Your task to perform on an android device: Empty the shopping cart on ebay.com. Add logitech g502 to the cart on ebay.com, then select checkout. Image 0: 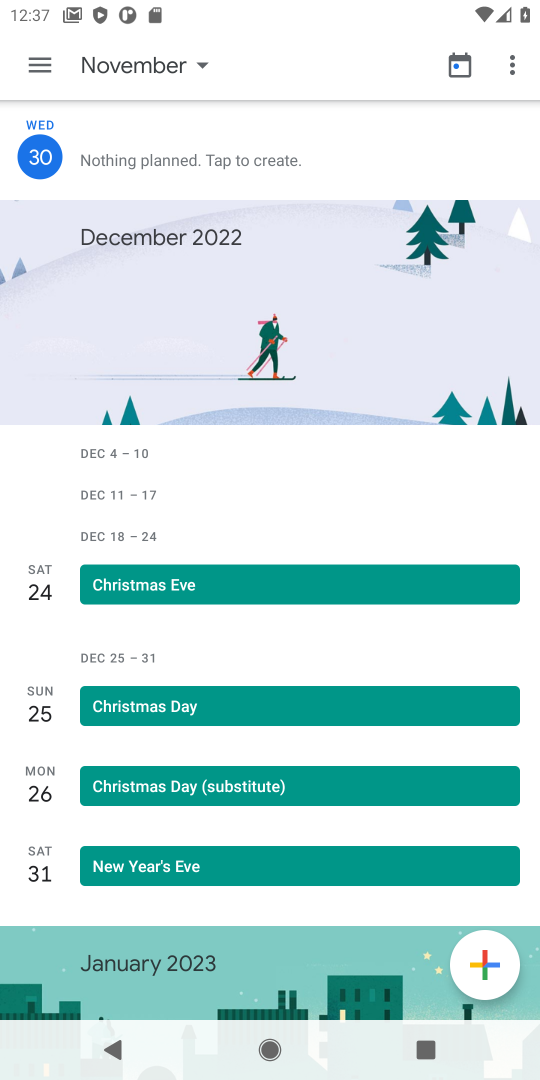
Step 0: press home button
Your task to perform on an android device: Empty the shopping cart on ebay.com. Add logitech g502 to the cart on ebay.com, then select checkout. Image 1: 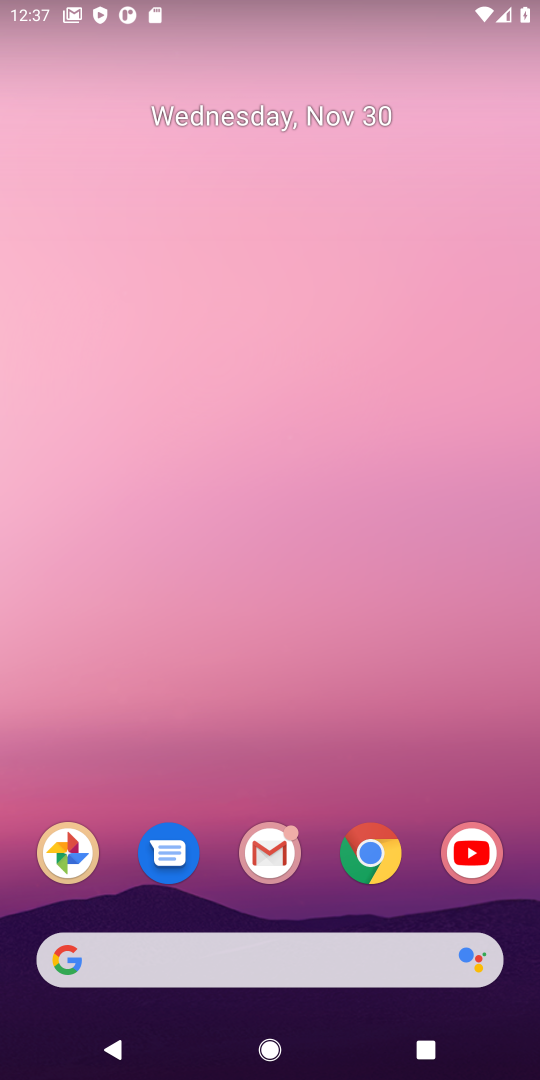
Step 1: click (378, 862)
Your task to perform on an android device: Empty the shopping cart on ebay.com. Add logitech g502 to the cart on ebay.com, then select checkout. Image 2: 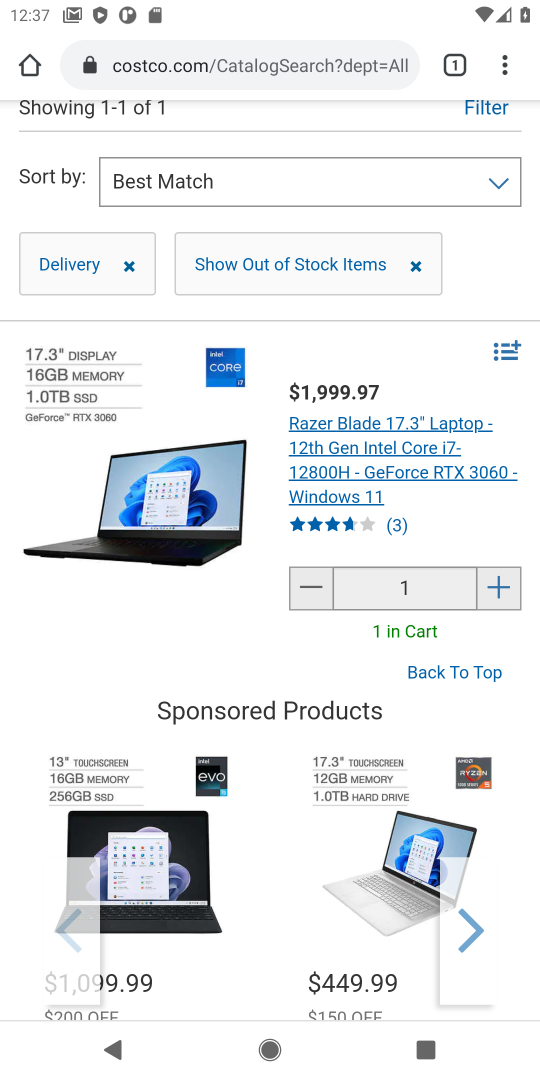
Step 2: click (216, 61)
Your task to perform on an android device: Empty the shopping cart on ebay.com. Add logitech g502 to the cart on ebay.com, then select checkout. Image 3: 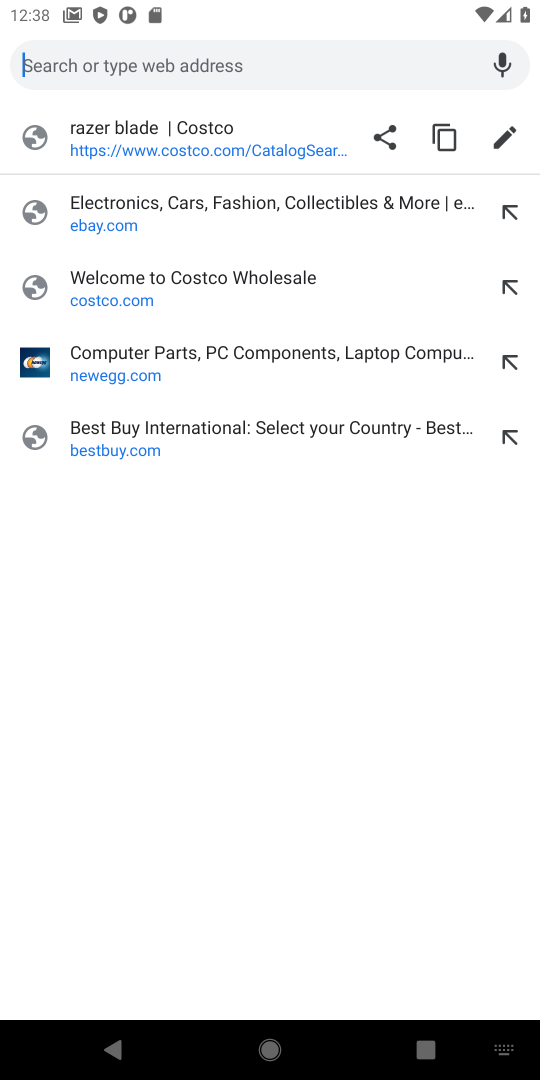
Step 3: click (98, 224)
Your task to perform on an android device: Empty the shopping cart on ebay.com. Add logitech g502 to the cart on ebay.com, then select checkout. Image 4: 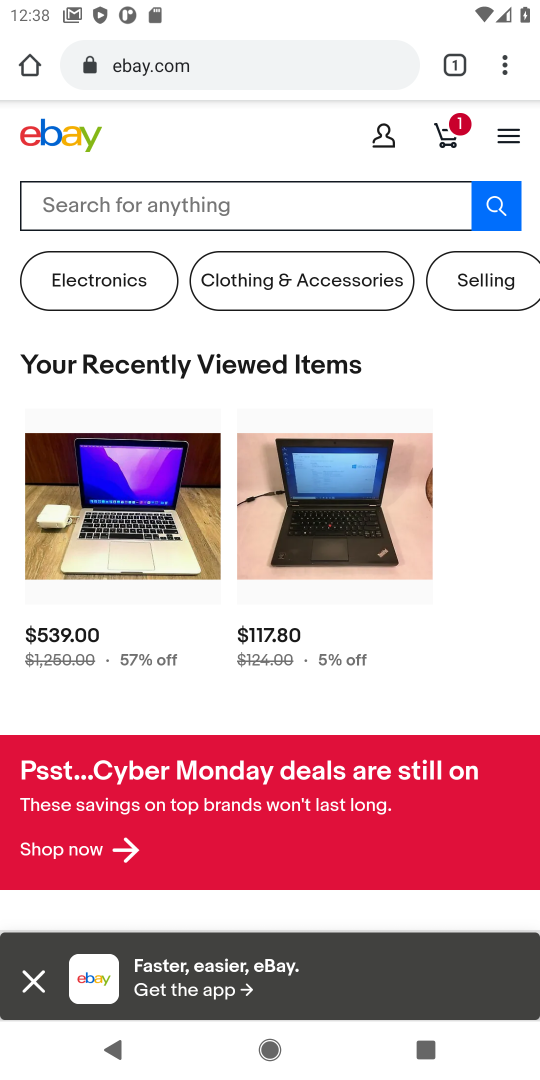
Step 4: click (452, 143)
Your task to perform on an android device: Empty the shopping cart on ebay.com. Add logitech g502 to the cart on ebay.com, then select checkout. Image 5: 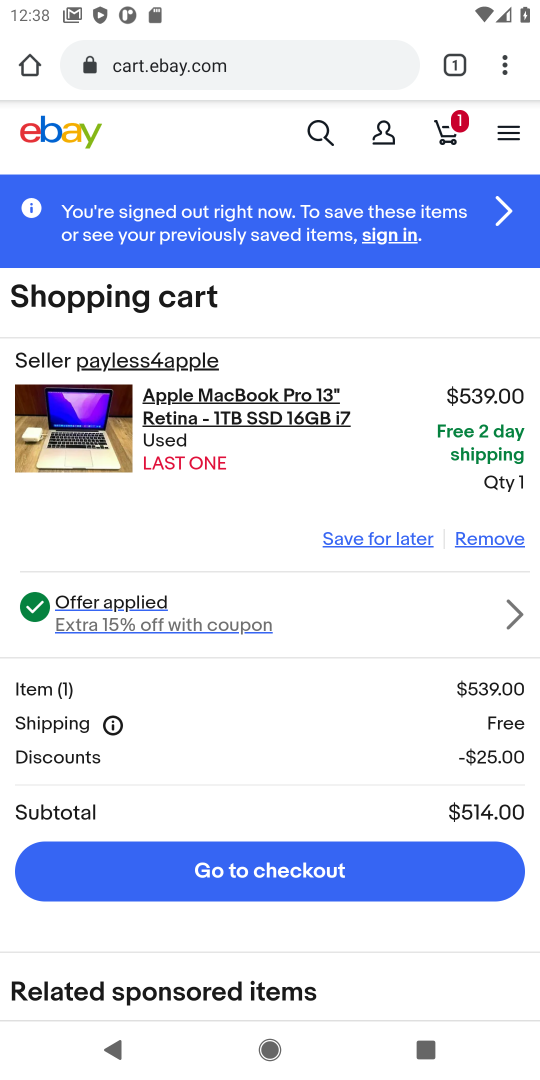
Step 5: click (476, 539)
Your task to perform on an android device: Empty the shopping cart on ebay.com. Add logitech g502 to the cart on ebay.com, then select checkout. Image 6: 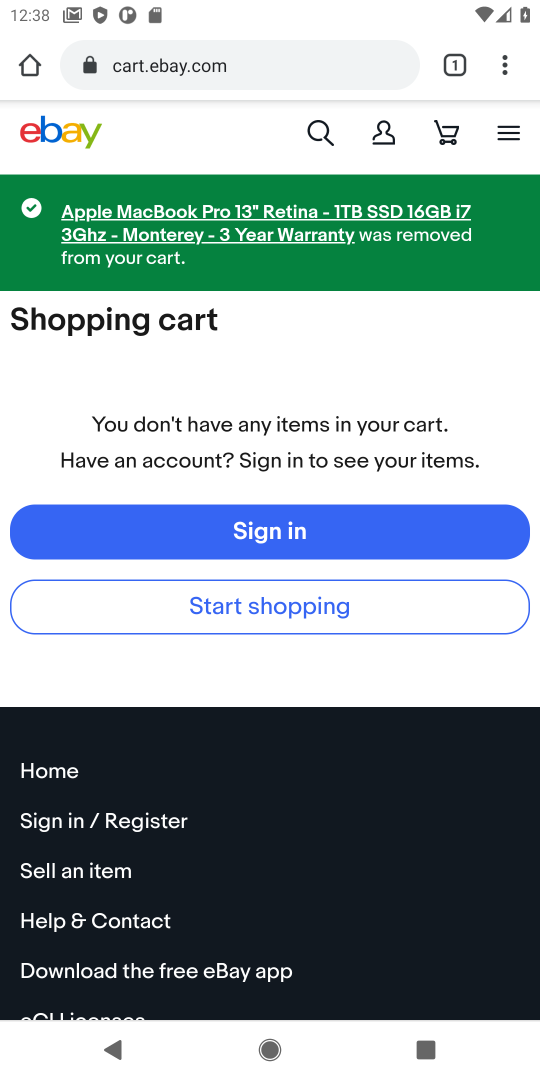
Step 6: click (318, 141)
Your task to perform on an android device: Empty the shopping cart on ebay.com. Add logitech g502 to the cart on ebay.com, then select checkout. Image 7: 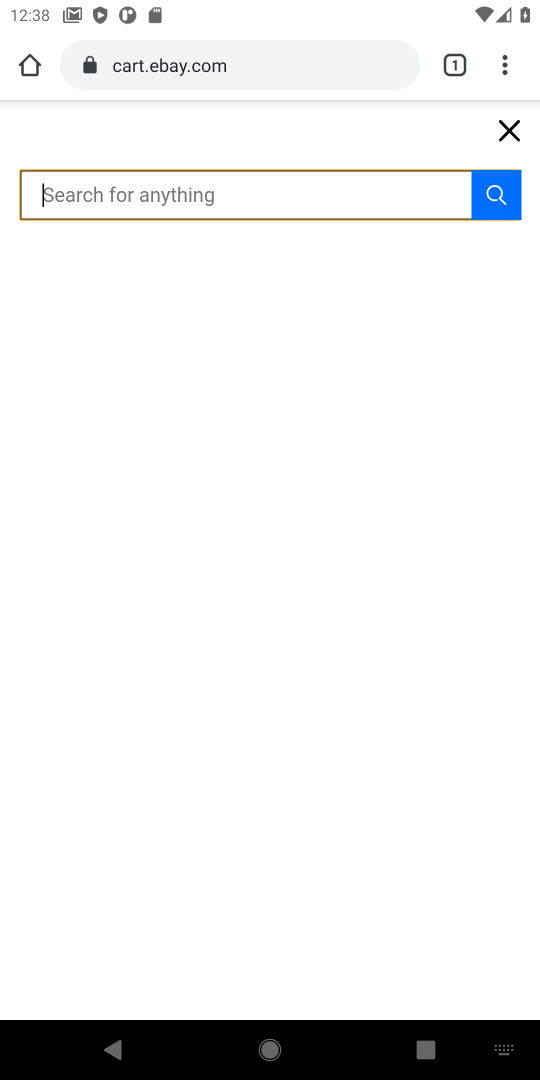
Step 7: type "logitech g502 "
Your task to perform on an android device: Empty the shopping cart on ebay.com. Add logitech g502 to the cart on ebay.com, then select checkout. Image 8: 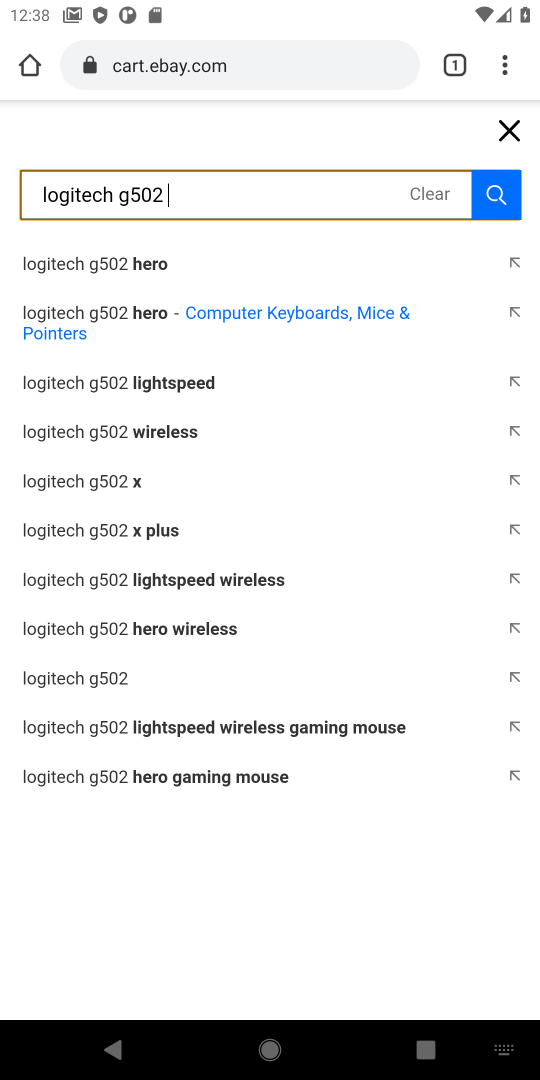
Step 8: click (493, 198)
Your task to perform on an android device: Empty the shopping cart on ebay.com. Add logitech g502 to the cart on ebay.com, then select checkout. Image 9: 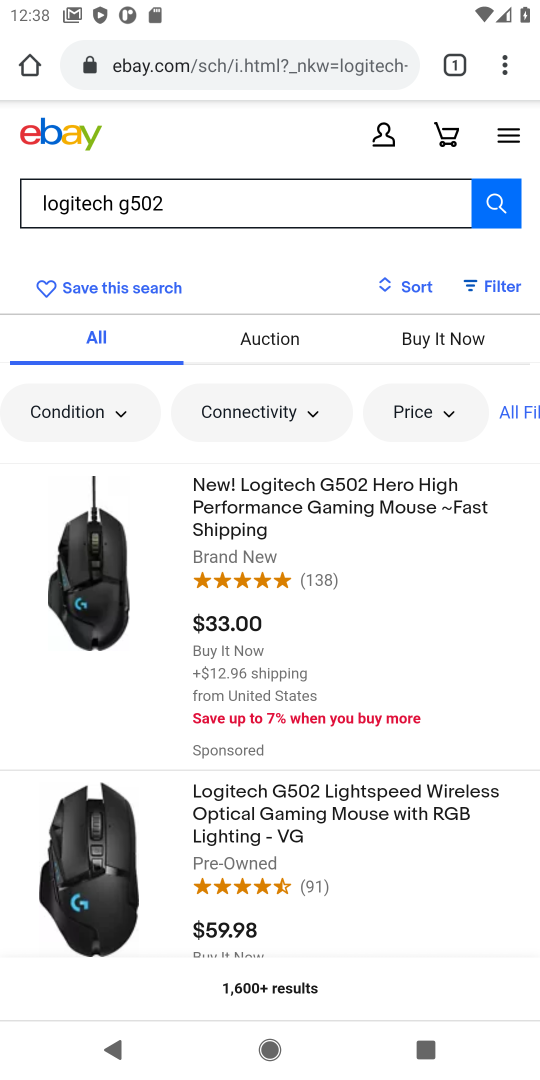
Step 9: click (224, 515)
Your task to perform on an android device: Empty the shopping cart on ebay.com. Add logitech g502 to the cart on ebay.com, then select checkout. Image 10: 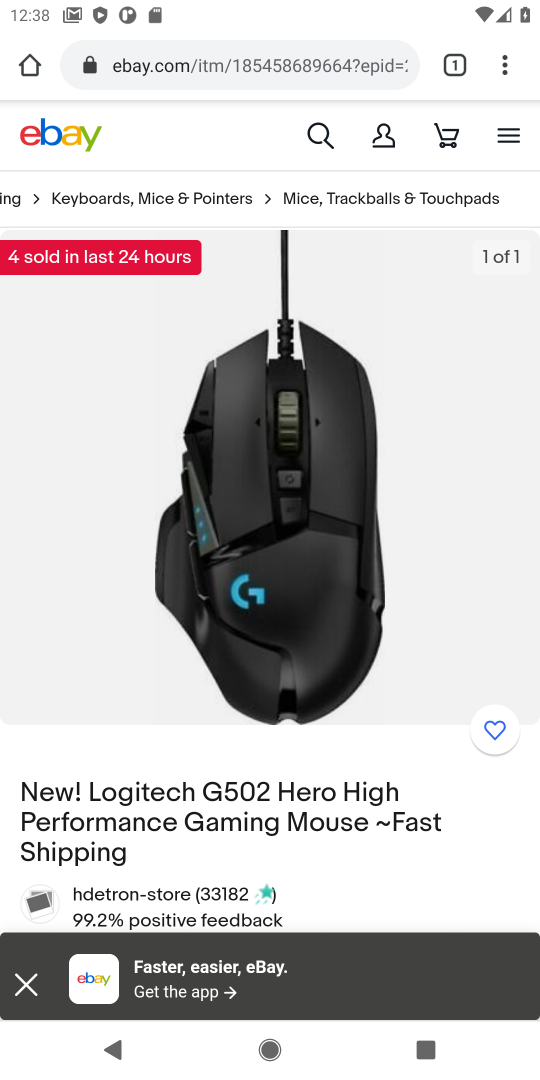
Step 10: drag from (282, 815) to (278, 421)
Your task to perform on an android device: Empty the shopping cart on ebay.com. Add logitech g502 to the cart on ebay.com, then select checkout. Image 11: 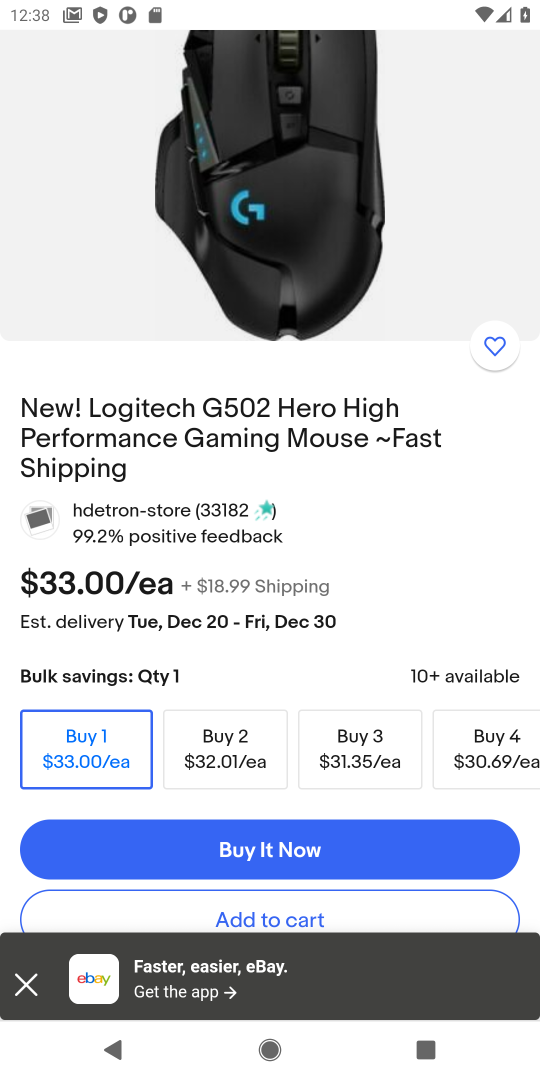
Step 11: drag from (278, 789) to (290, 601)
Your task to perform on an android device: Empty the shopping cart on ebay.com. Add logitech g502 to the cart on ebay.com, then select checkout. Image 12: 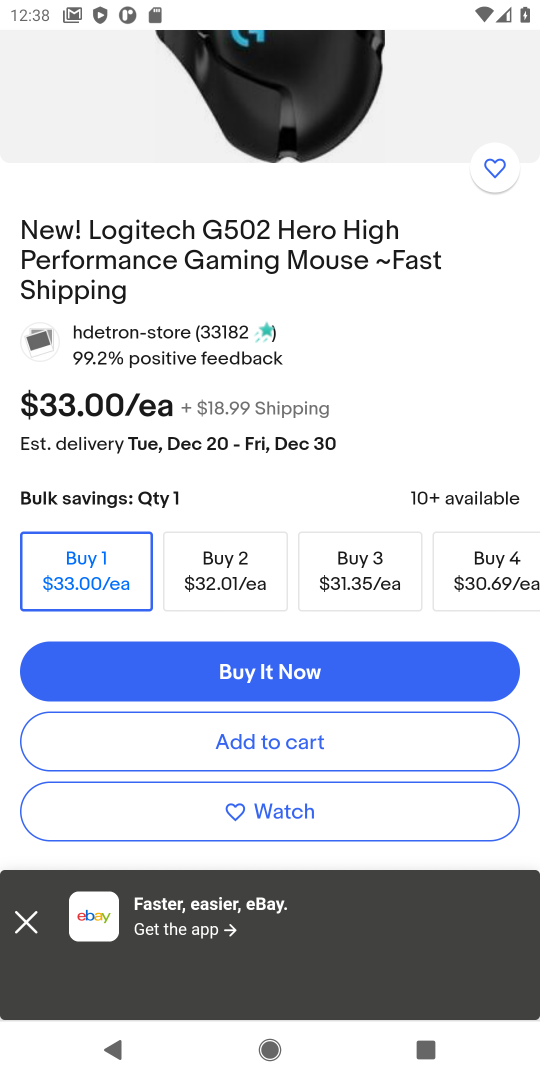
Step 12: click (256, 745)
Your task to perform on an android device: Empty the shopping cart on ebay.com. Add logitech g502 to the cart on ebay.com, then select checkout. Image 13: 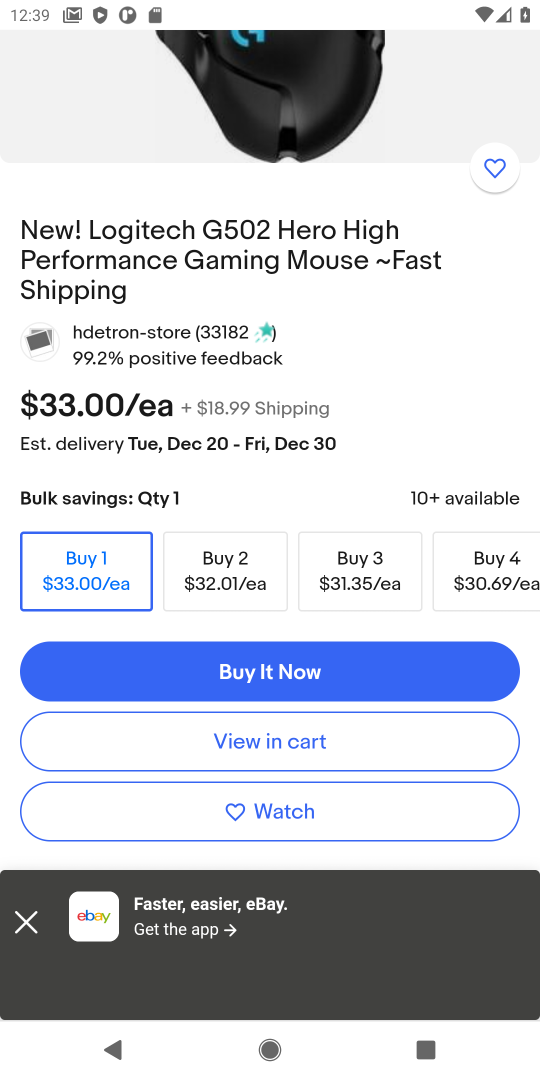
Step 13: click (243, 741)
Your task to perform on an android device: Empty the shopping cart on ebay.com. Add logitech g502 to the cart on ebay.com, then select checkout. Image 14: 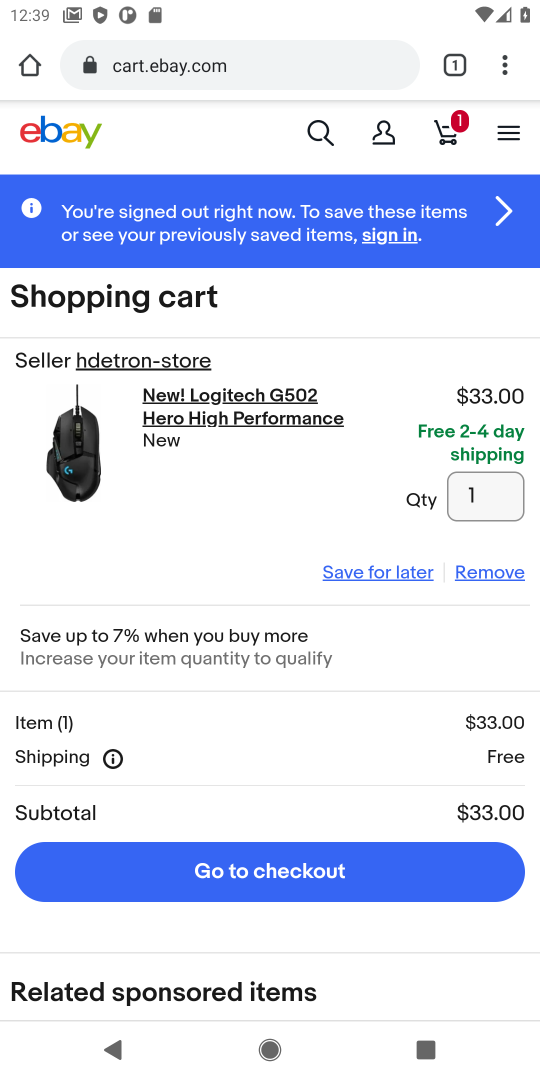
Step 14: click (263, 873)
Your task to perform on an android device: Empty the shopping cart on ebay.com. Add logitech g502 to the cart on ebay.com, then select checkout. Image 15: 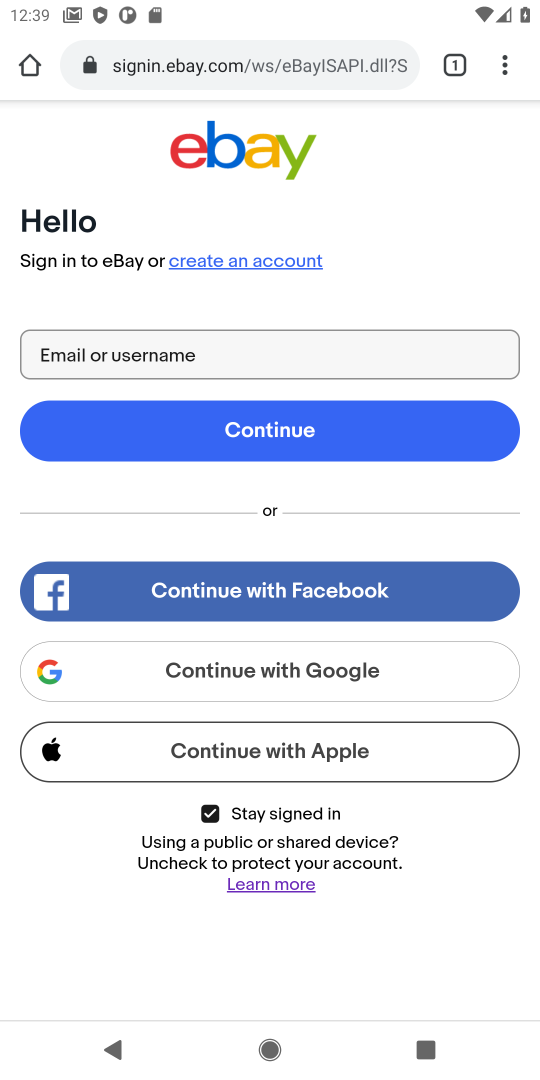
Step 15: task complete